Your task to perform on an android device: Open Android settings Image 0: 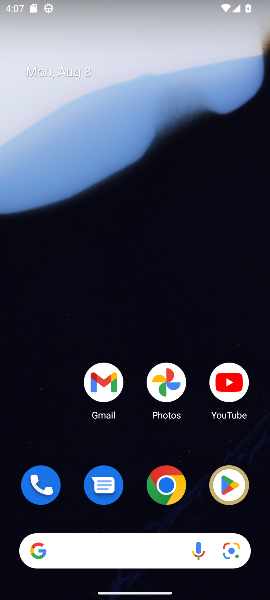
Step 0: drag from (202, 553) to (129, 58)
Your task to perform on an android device: Open Android settings Image 1: 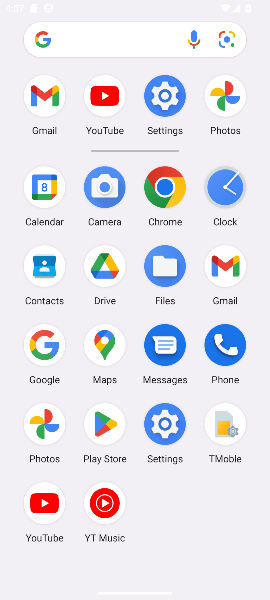
Step 1: drag from (171, 421) to (151, 82)
Your task to perform on an android device: Open Android settings Image 2: 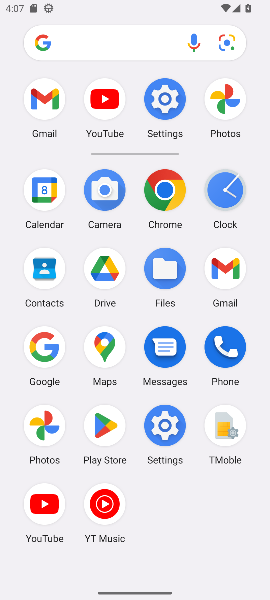
Step 2: click (174, 421)
Your task to perform on an android device: Open Android settings Image 3: 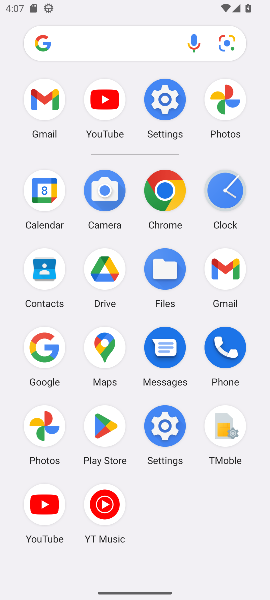
Step 3: click (167, 431)
Your task to perform on an android device: Open Android settings Image 4: 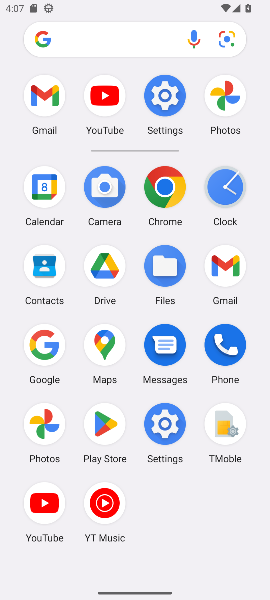
Step 4: click (164, 425)
Your task to perform on an android device: Open Android settings Image 5: 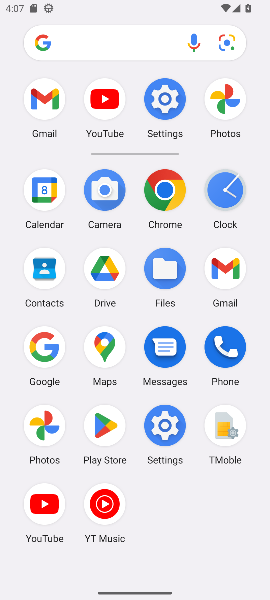
Step 5: click (165, 425)
Your task to perform on an android device: Open Android settings Image 6: 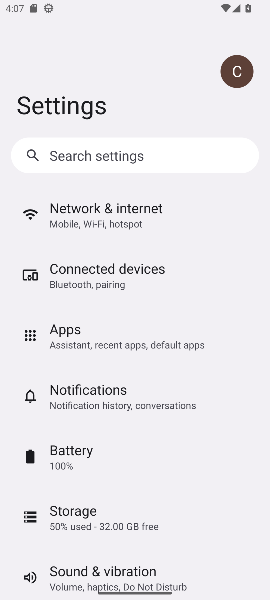
Step 6: drag from (108, 413) to (112, 125)
Your task to perform on an android device: Open Android settings Image 7: 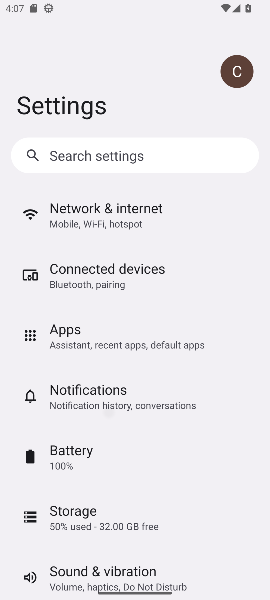
Step 7: drag from (162, 517) to (172, 185)
Your task to perform on an android device: Open Android settings Image 8: 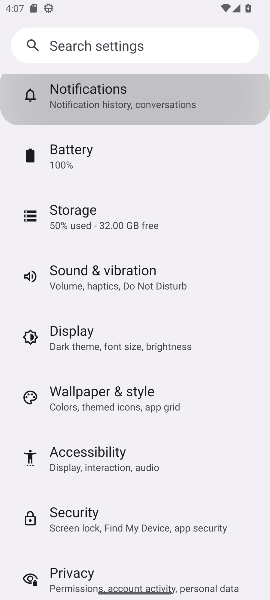
Step 8: drag from (164, 468) to (139, 297)
Your task to perform on an android device: Open Android settings Image 9: 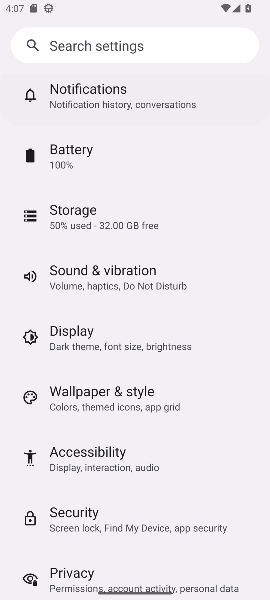
Step 9: click (126, 274)
Your task to perform on an android device: Open Android settings Image 10: 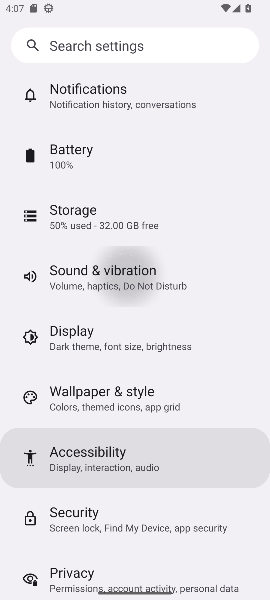
Step 10: drag from (132, 443) to (114, 327)
Your task to perform on an android device: Open Android settings Image 11: 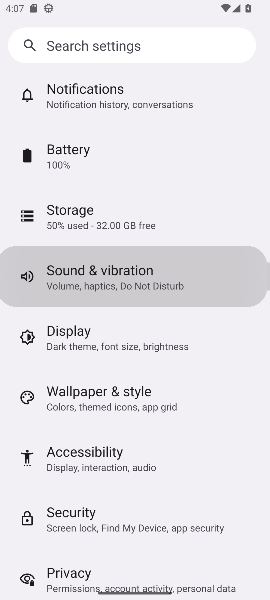
Step 11: drag from (120, 510) to (120, 296)
Your task to perform on an android device: Open Android settings Image 12: 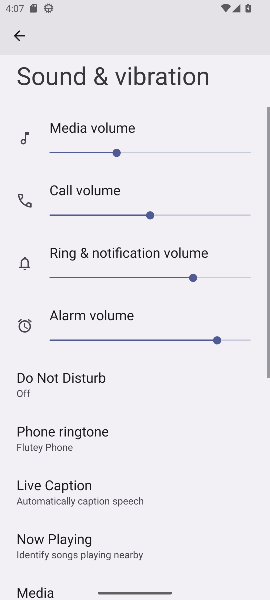
Step 12: drag from (120, 523) to (107, 302)
Your task to perform on an android device: Open Android settings Image 13: 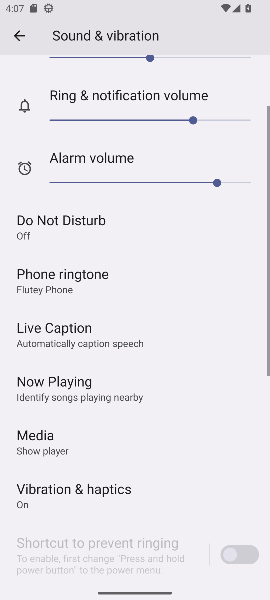
Step 13: drag from (88, 460) to (88, 330)
Your task to perform on an android device: Open Android settings Image 14: 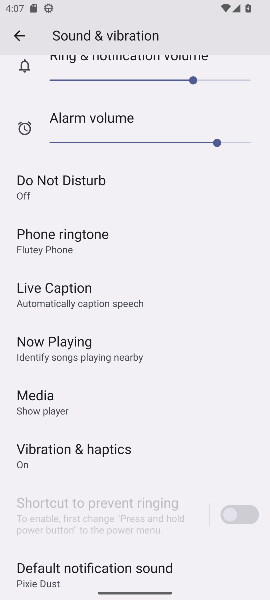
Step 14: click (25, 34)
Your task to perform on an android device: Open Android settings Image 15: 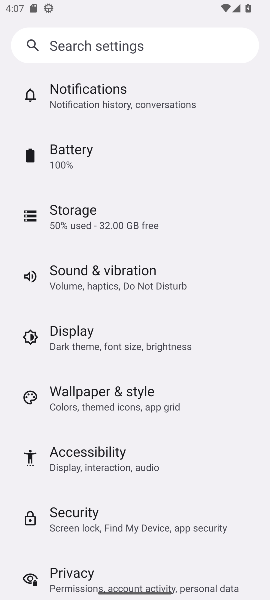
Step 15: drag from (147, 479) to (160, 227)
Your task to perform on an android device: Open Android settings Image 16: 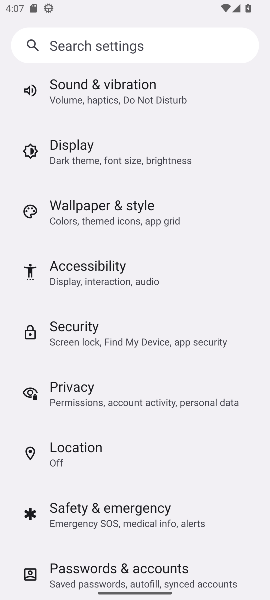
Step 16: drag from (121, 441) to (122, 181)
Your task to perform on an android device: Open Android settings Image 17: 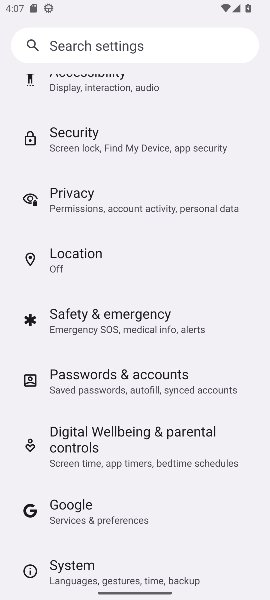
Step 17: drag from (98, 429) to (114, 161)
Your task to perform on an android device: Open Android settings Image 18: 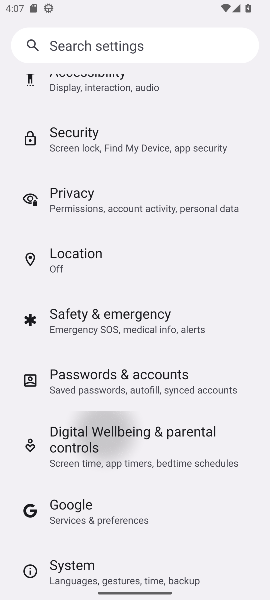
Step 18: drag from (145, 449) to (135, 243)
Your task to perform on an android device: Open Android settings Image 19: 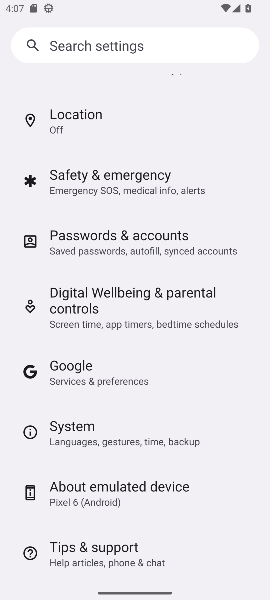
Step 19: drag from (82, 365) to (92, 184)
Your task to perform on an android device: Open Android settings Image 20: 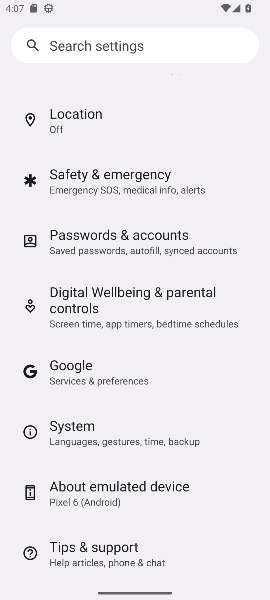
Step 20: drag from (135, 495) to (135, 275)
Your task to perform on an android device: Open Android settings Image 21: 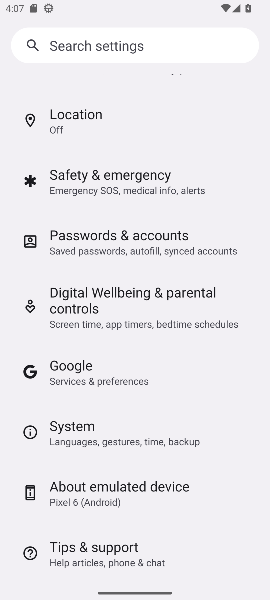
Step 21: click (79, 482)
Your task to perform on an android device: Open Android settings Image 22: 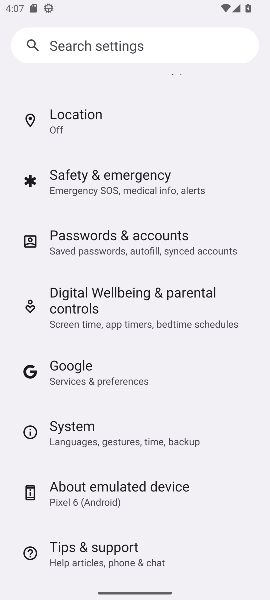
Step 22: click (79, 495)
Your task to perform on an android device: Open Android settings Image 23: 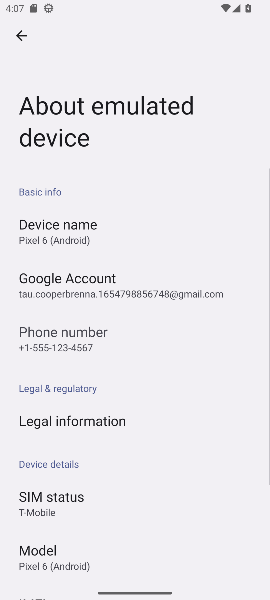
Step 23: click (79, 495)
Your task to perform on an android device: Open Android settings Image 24: 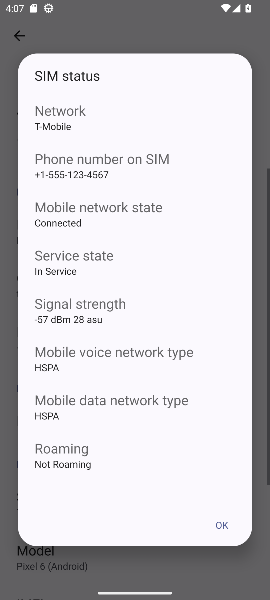
Step 24: click (19, 53)
Your task to perform on an android device: Open Android settings Image 25: 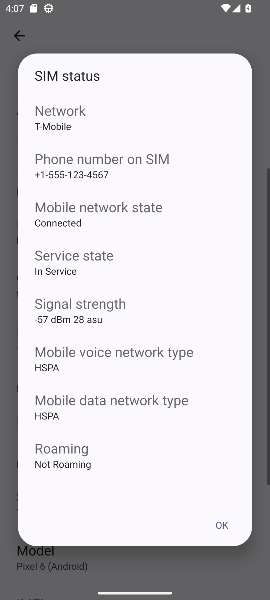
Step 25: click (25, 32)
Your task to perform on an android device: Open Android settings Image 26: 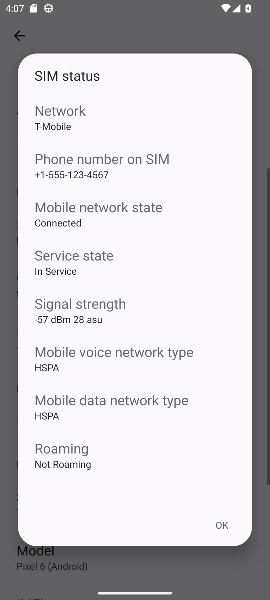
Step 26: click (24, 37)
Your task to perform on an android device: Open Android settings Image 27: 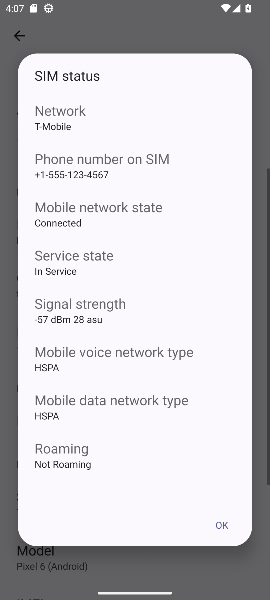
Step 27: click (221, 527)
Your task to perform on an android device: Open Android settings Image 28: 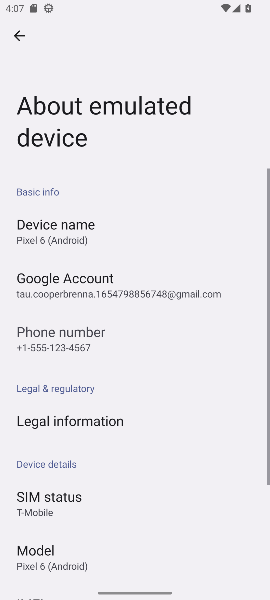
Step 28: drag from (73, 483) to (21, 168)
Your task to perform on an android device: Open Android settings Image 29: 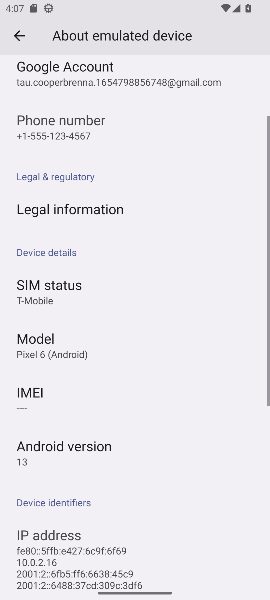
Step 29: drag from (108, 398) to (158, 53)
Your task to perform on an android device: Open Android settings Image 30: 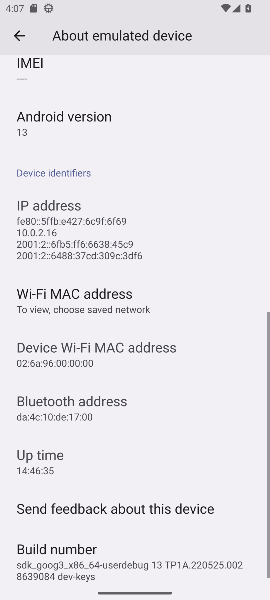
Step 30: drag from (117, 380) to (117, 39)
Your task to perform on an android device: Open Android settings Image 31: 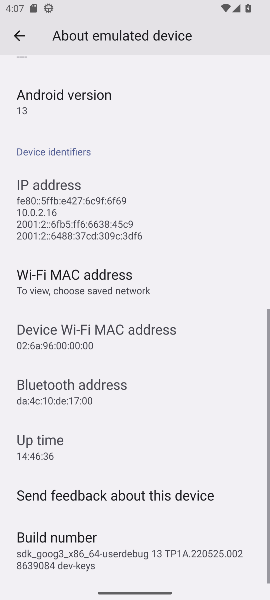
Step 31: drag from (138, 447) to (145, 71)
Your task to perform on an android device: Open Android settings Image 32: 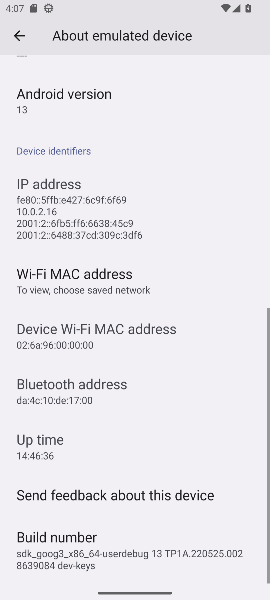
Step 32: drag from (58, 394) to (88, 92)
Your task to perform on an android device: Open Android settings Image 33: 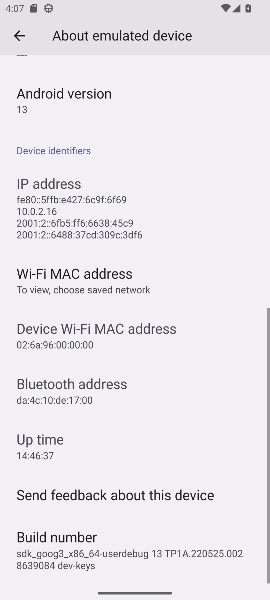
Step 33: drag from (93, 394) to (139, 115)
Your task to perform on an android device: Open Android settings Image 34: 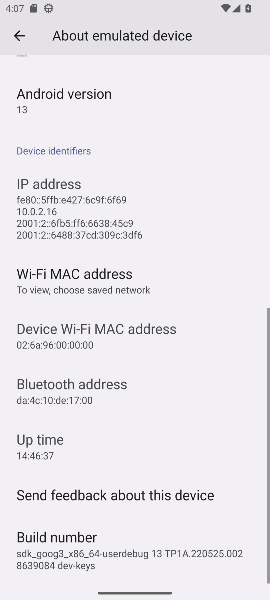
Step 34: drag from (142, 450) to (198, 154)
Your task to perform on an android device: Open Android settings Image 35: 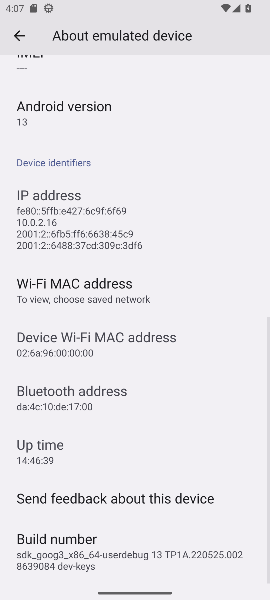
Step 35: click (10, 100)
Your task to perform on an android device: Open Android settings Image 36: 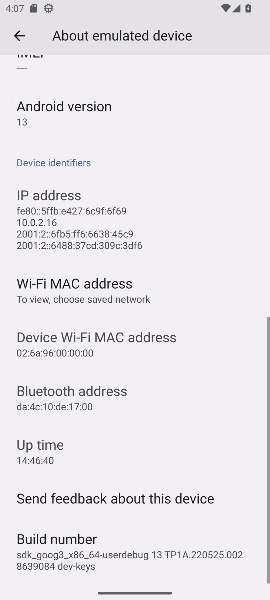
Step 36: click (22, 105)
Your task to perform on an android device: Open Android settings Image 37: 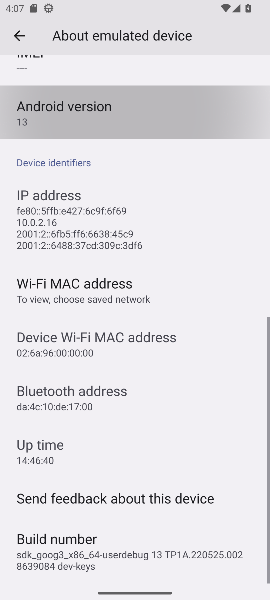
Step 37: task complete